Your task to perform on an android device: What is the recent news? Image 0: 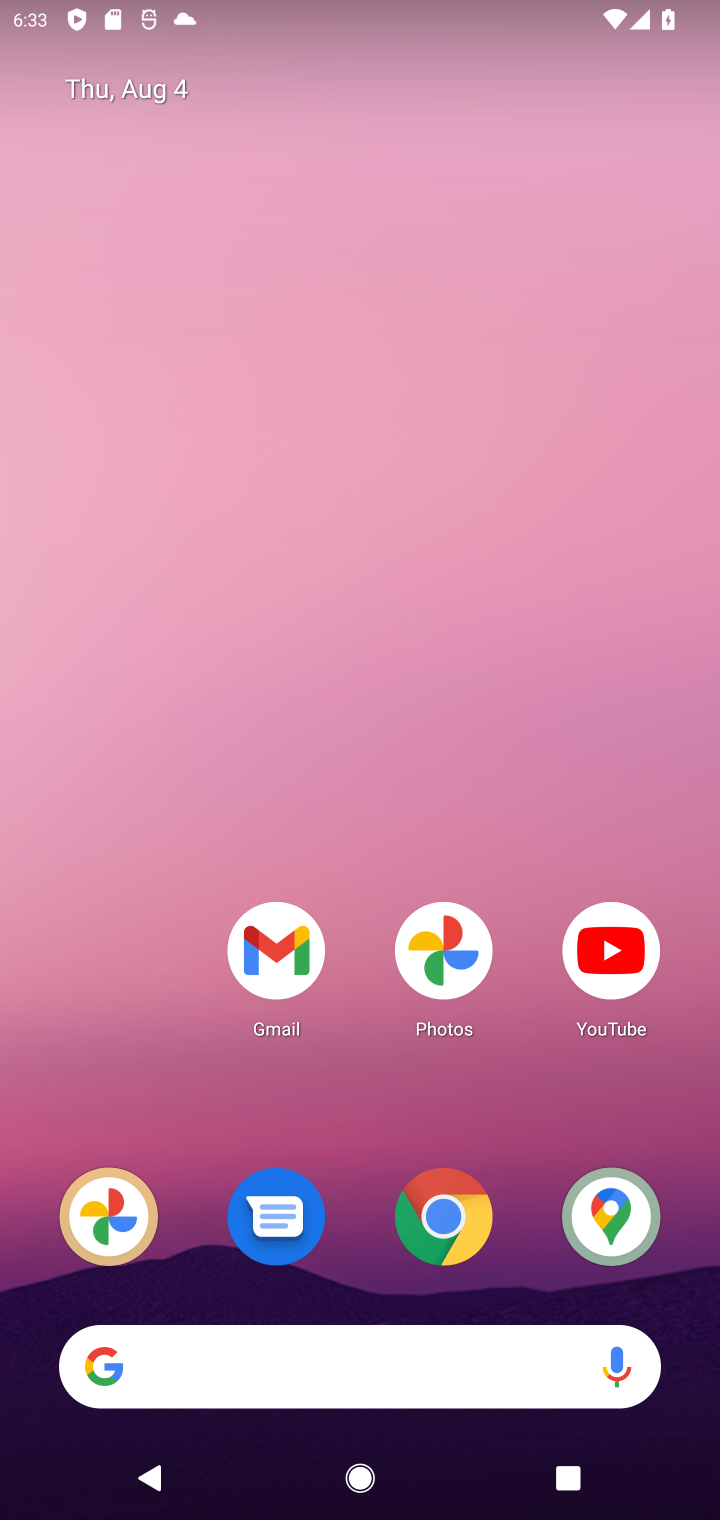
Step 0: drag from (26, 685) to (609, 722)
Your task to perform on an android device: What is the recent news? Image 1: 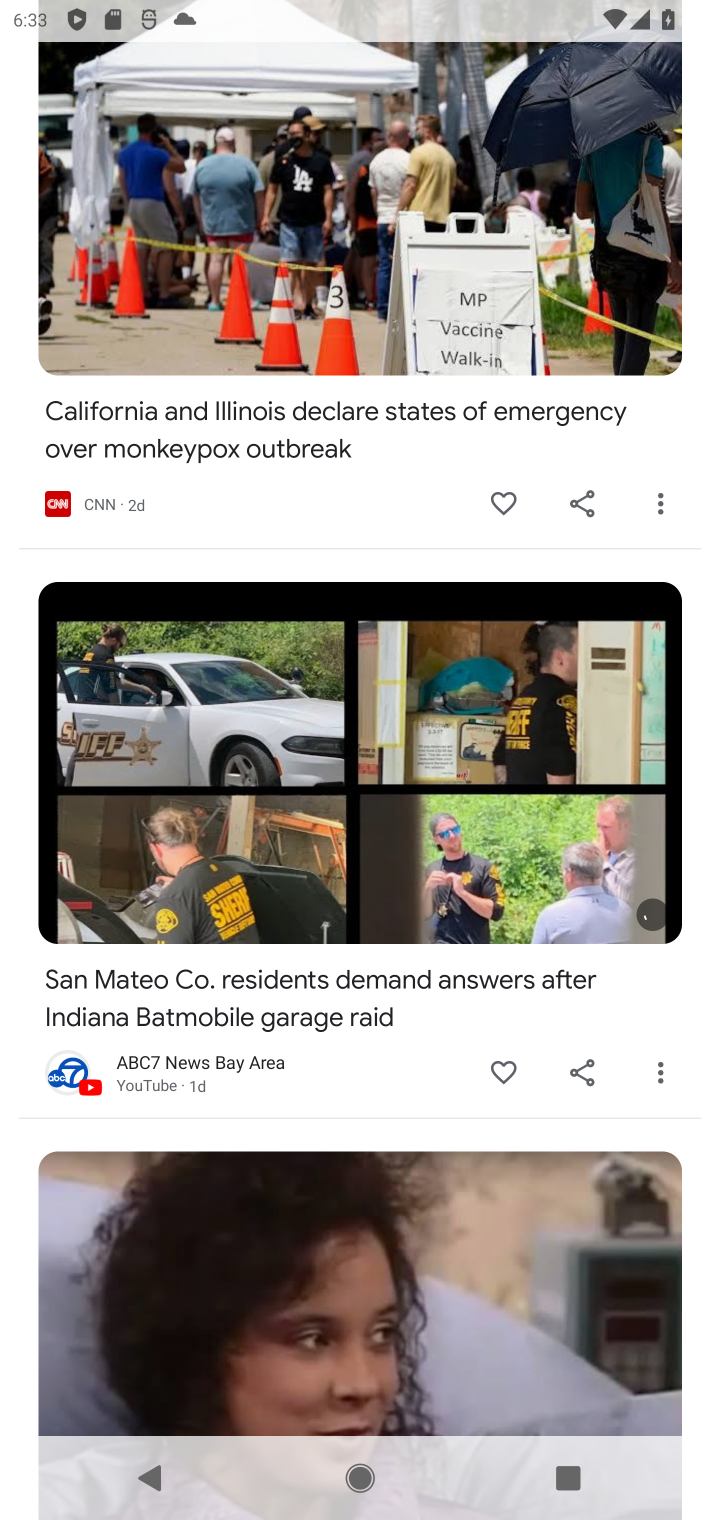
Step 1: task complete